Your task to perform on an android device: turn off translation in the chrome app Image 0: 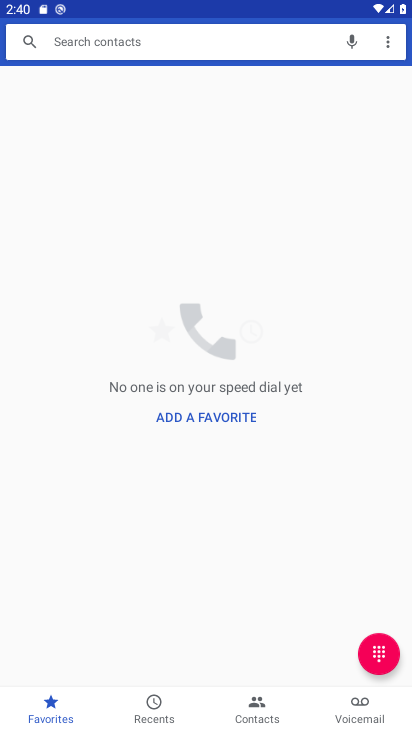
Step 0: press home button
Your task to perform on an android device: turn off translation in the chrome app Image 1: 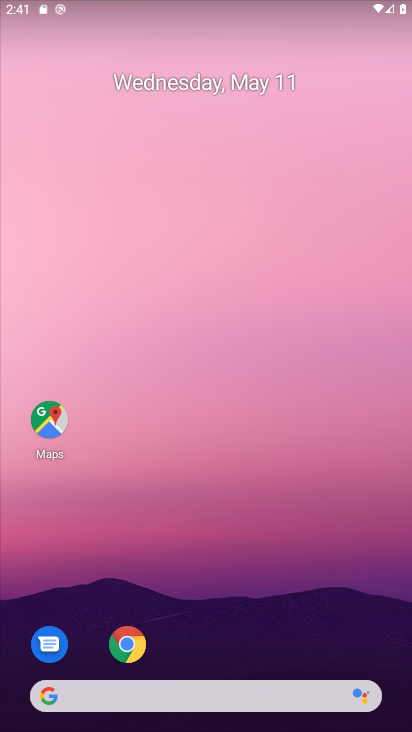
Step 1: drag from (234, 676) to (218, 25)
Your task to perform on an android device: turn off translation in the chrome app Image 2: 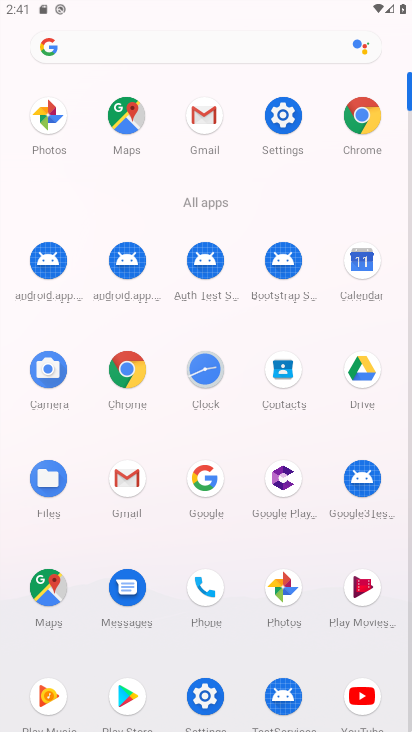
Step 2: click (129, 376)
Your task to perform on an android device: turn off translation in the chrome app Image 3: 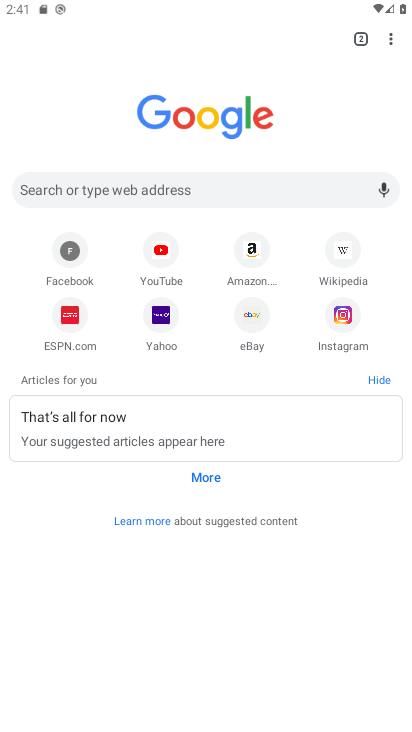
Step 3: click (388, 39)
Your task to perform on an android device: turn off translation in the chrome app Image 4: 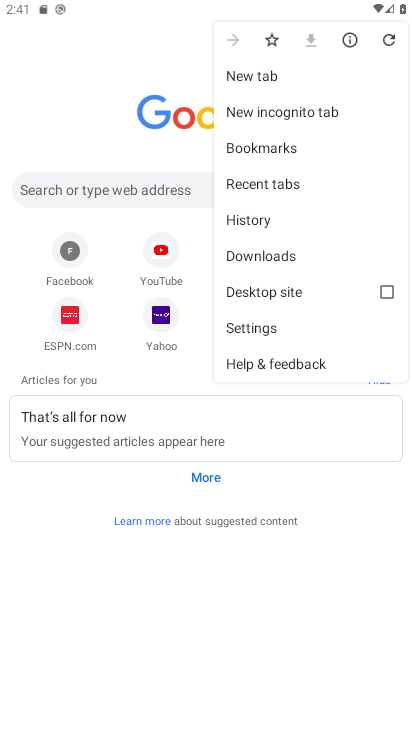
Step 4: click (239, 332)
Your task to perform on an android device: turn off translation in the chrome app Image 5: 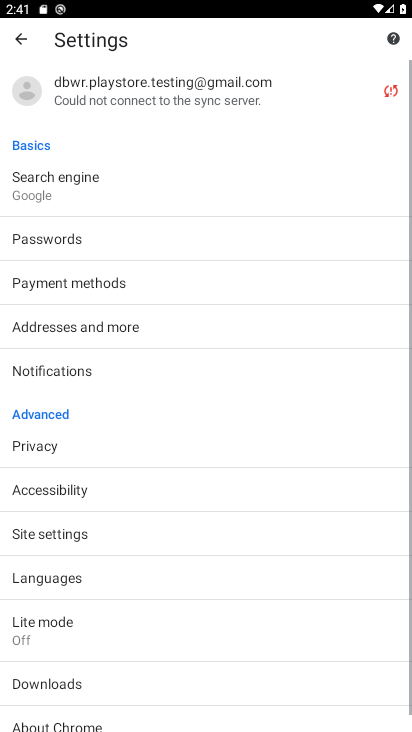
Step 5: drag from (208, 617) to (198, 367)
Your task to perform on an android device: turn off translation in the chrome app Image 6: 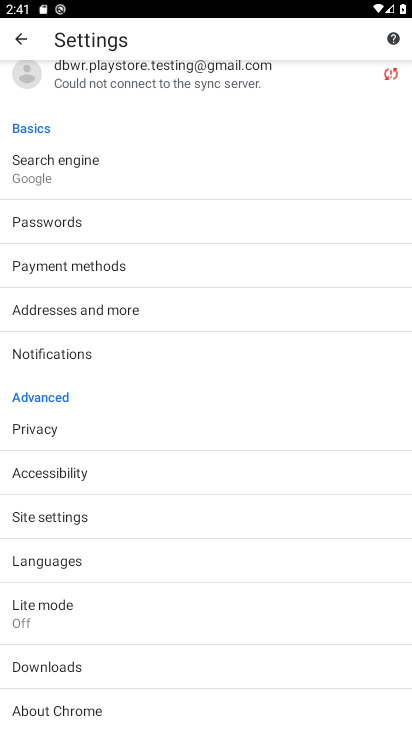
Step 6: click (59, 564)
Your task to perform on an android device: turn off translation in the chrome app Image 7: 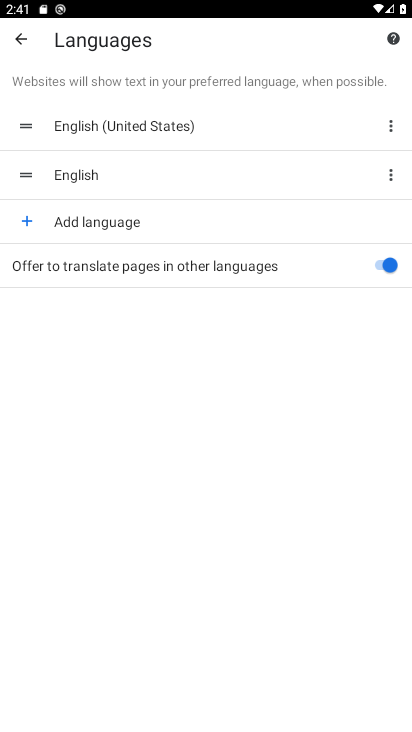
Step 7: click (395, 265)
Your task to perform on an android device: turn off translation in the chrome app Image 8: 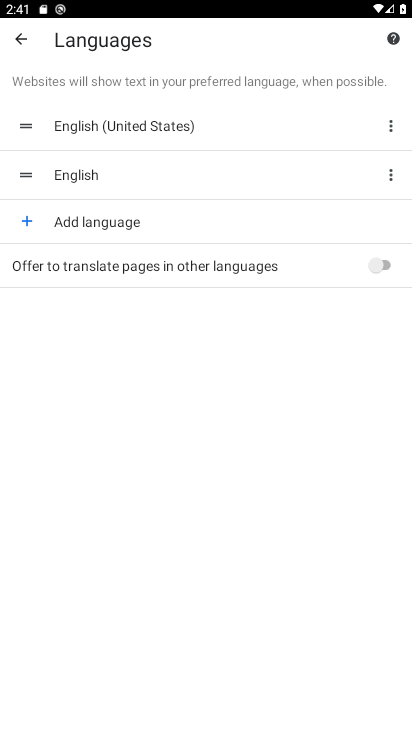
Step 8: task complete